Your task to perform on an android device: Search for vegetarian restaurants on Maps Image 0: 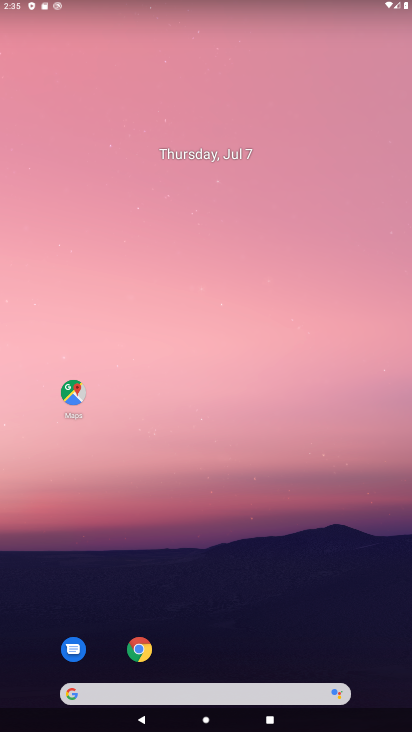
Step 0: click (71, 387)
Your task to perform on an android device: Search for vegetarian restaurants on Maps Image 1: 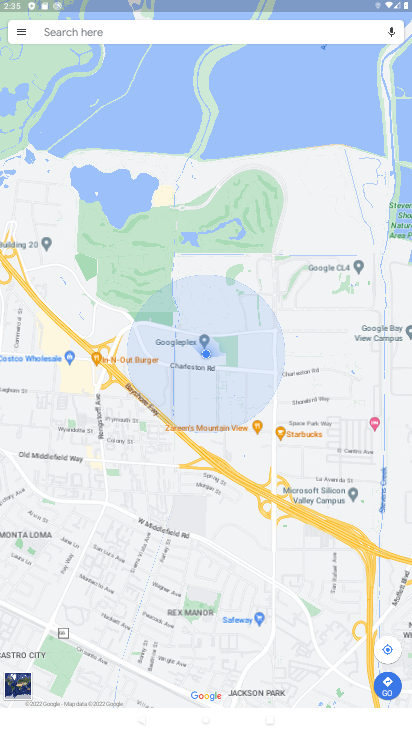
Step 1: click (117, 38)
Your task to perform on an android device: Search for vegetarian restaurants on Maps Image 2: 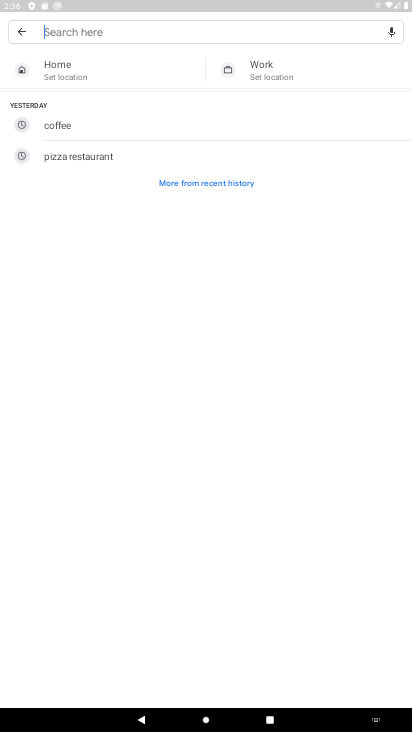
Step 2: type "vegetarian "
Your task to perform on an android device: Search for vegetarian restaurants on Maps Image 3: 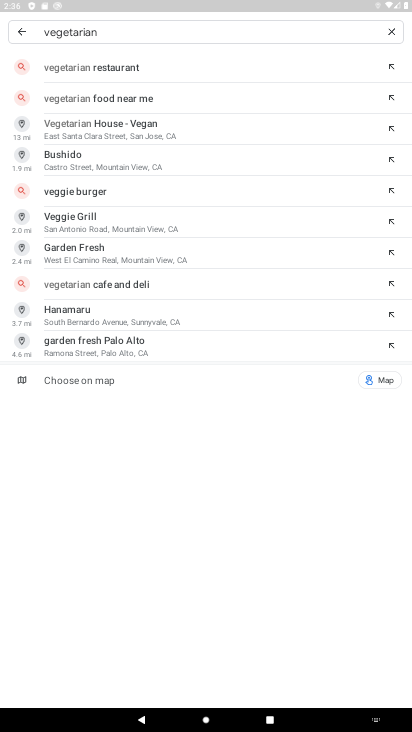
Step 3: click (116, 64)
Your task to perform on an android device: Search for vegetarian restaurants on Maps Image 4: 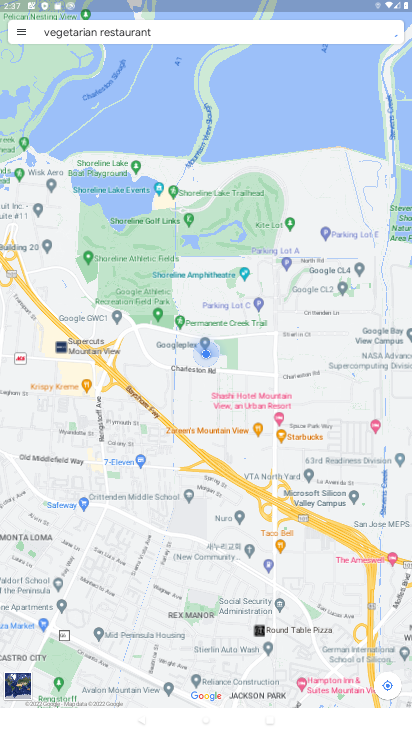
Step 4: task complete